Your task to perform on an android device: What's the weather going to be this weekend? Image 0: 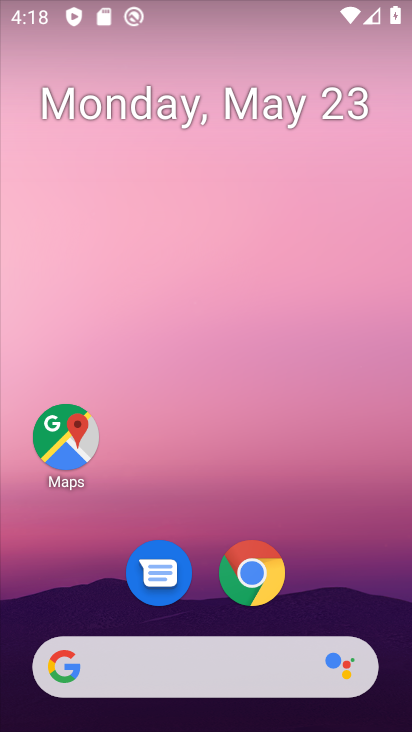
Step 0: drag from (225, 719) to (226, 119)
Your task to perform on an android device: What's the weather going to be this weekend? Image 1: 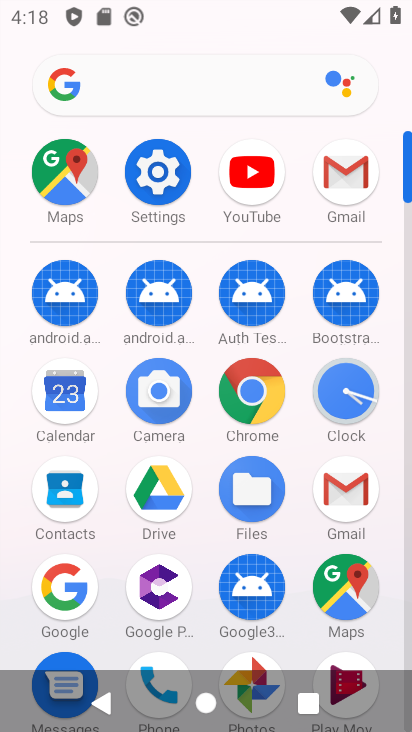
Step 1: click (74, 586)
Your task to perform on an android device: What's the weather going to be this weekend? Image 2: 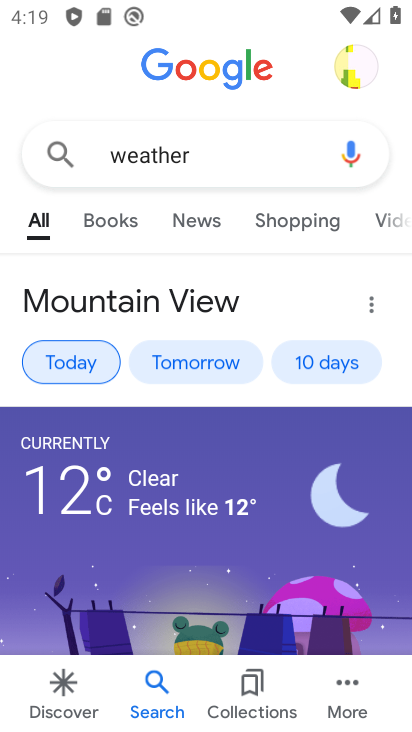
Step 2: click (326, 362)
Your task to perform on an android device: What's the weather going to be this weekend? Image 3: 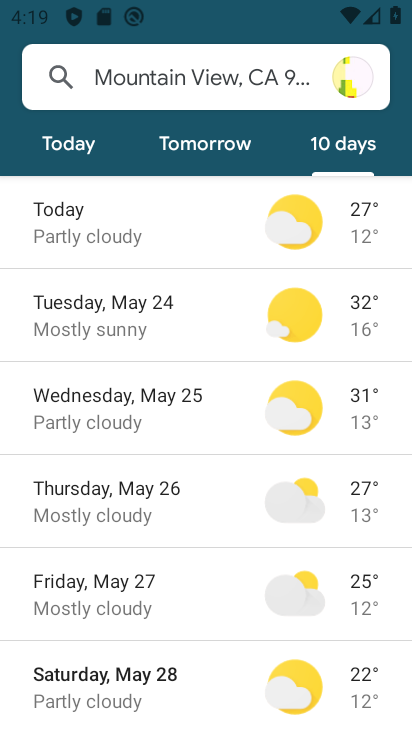
Step 3: task complete